Your task to perform on an android device: turn on translation in the chrome app Image 0: 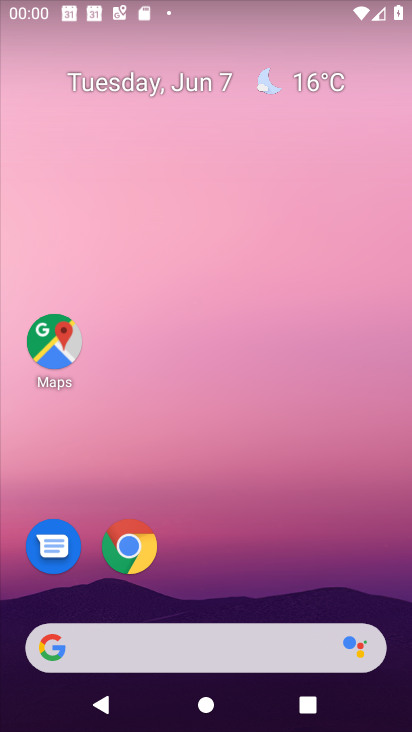
Step 0: click (132, 534)
Your task to perform on an android device: turn on translation in the chrome app Image 1: 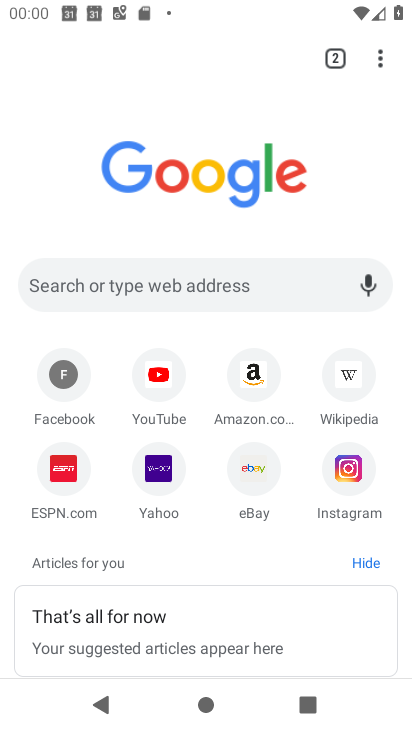
Step 1: click (380, 52)
Your task to perform on an android device: turn on translation in the chrome app Image 2: 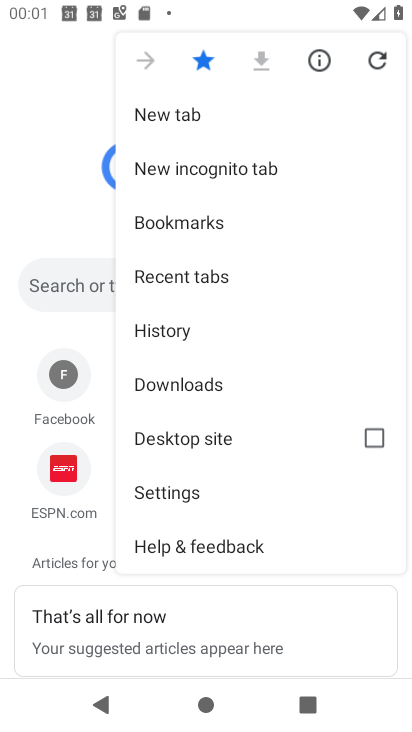
Step 2: click (188, 492)
Your task to perform on an android device: turn on translation in the chrome app Image 3: 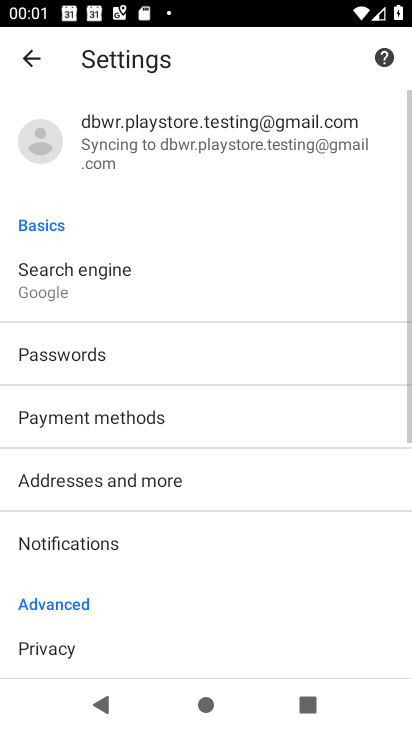
Step 3: drag from (112, 584) to (162, 309)
Your task to perform on an android device: turn on translation in the chrome app Image 4: 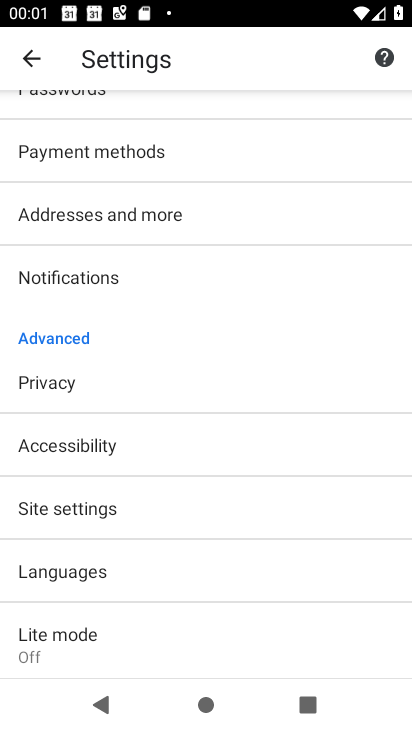
Step 4: click (110, 570)
Your task to perform on an android device: turn on translation in the chrome app Image 5: 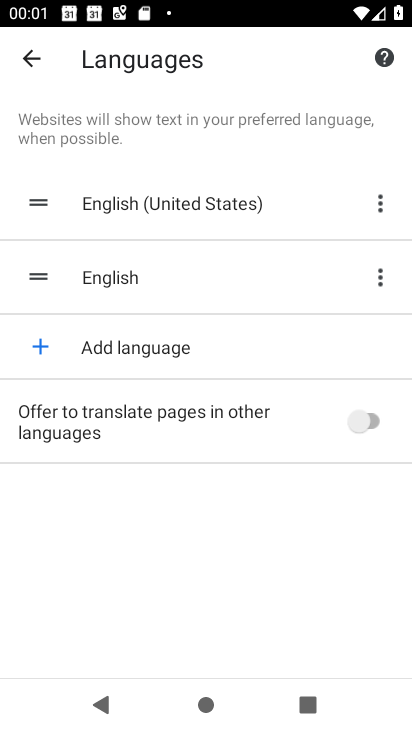
Step 5: click (383, 430)
Your task to perform on an android device: turn on translation in the chrome app Image 6: 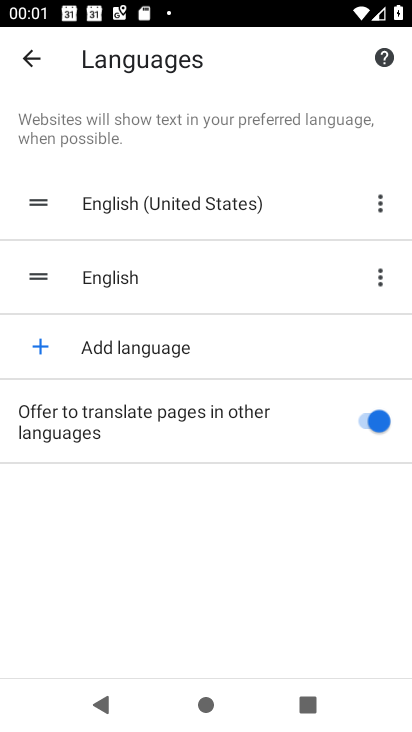
Step 6: task complete